Your task to perform on an android device: Open the stopwatch Image 0: 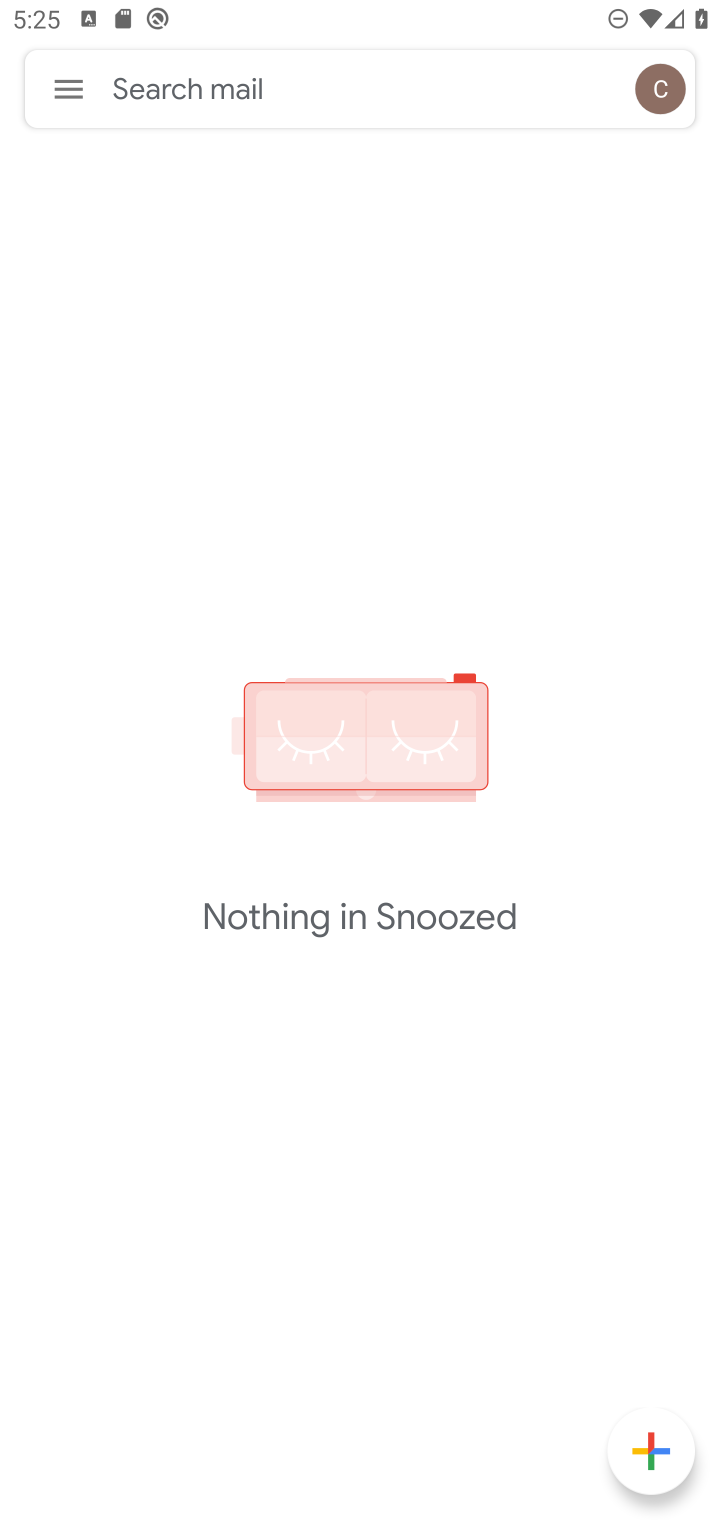
Step 0: press home button
Your task to perform on an android device: Open the stopwatch Image 1: 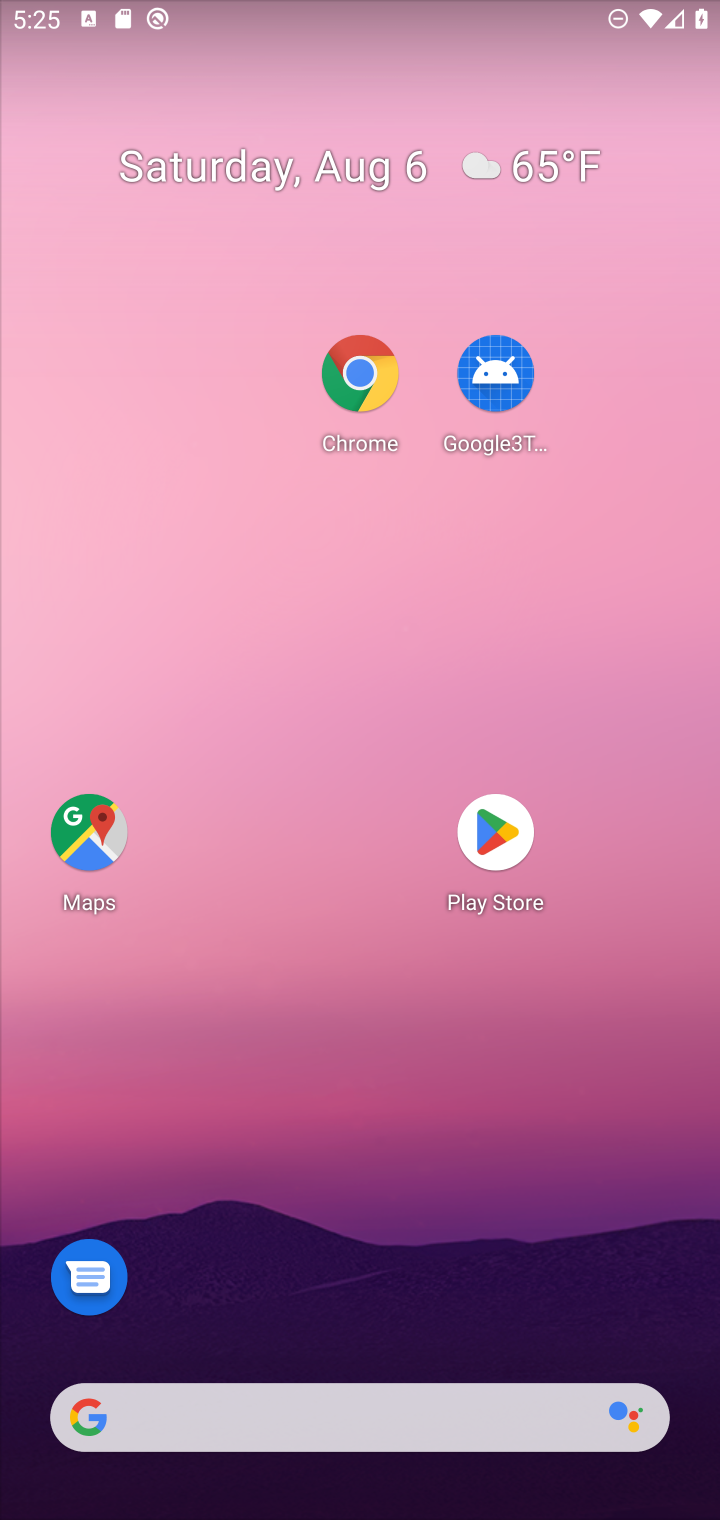
Step 1: drag from (413, 1431) to (394, 51)
Your task to perform on an android device: Open the stopwatch Image 2: 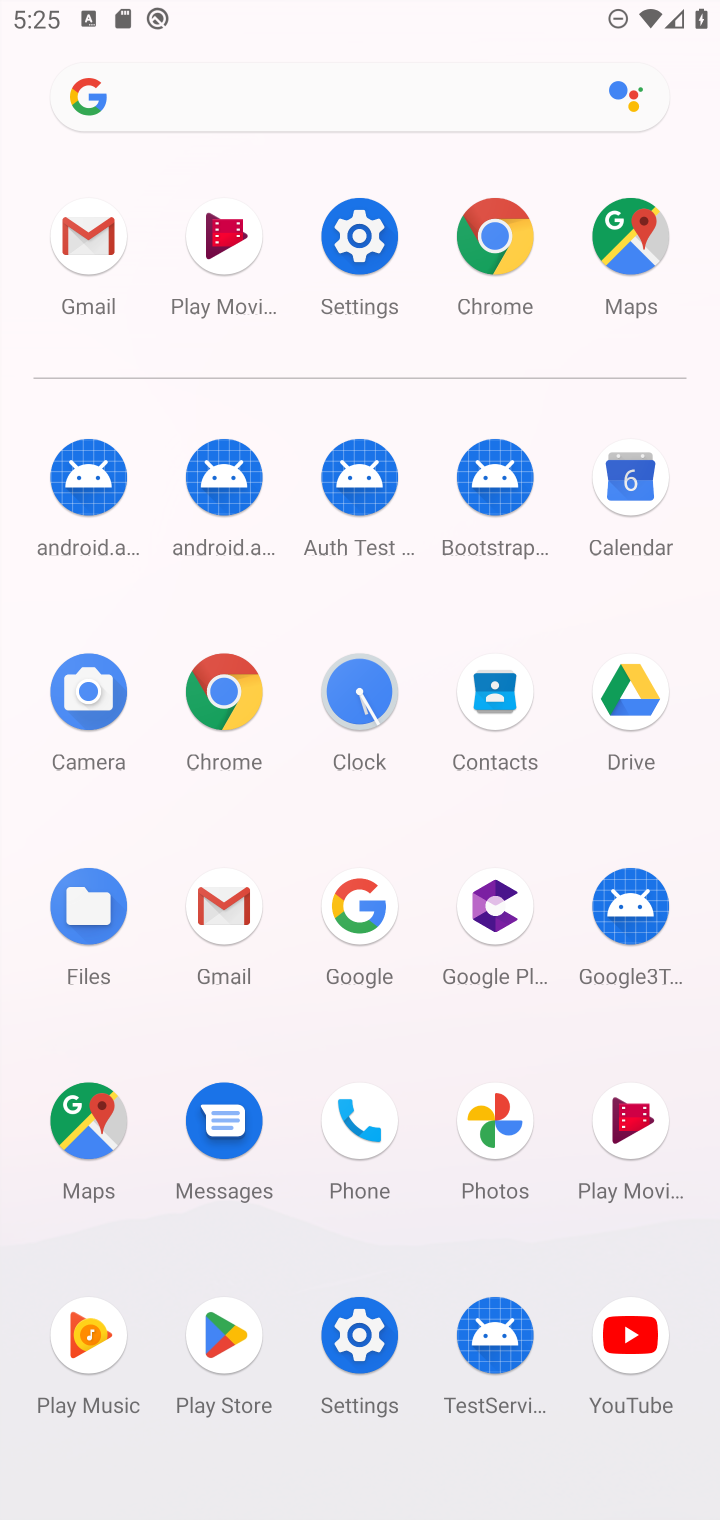
Step 2: click (345, 690)
Your task to perform on an android device: Open the stopwatch Image 3: 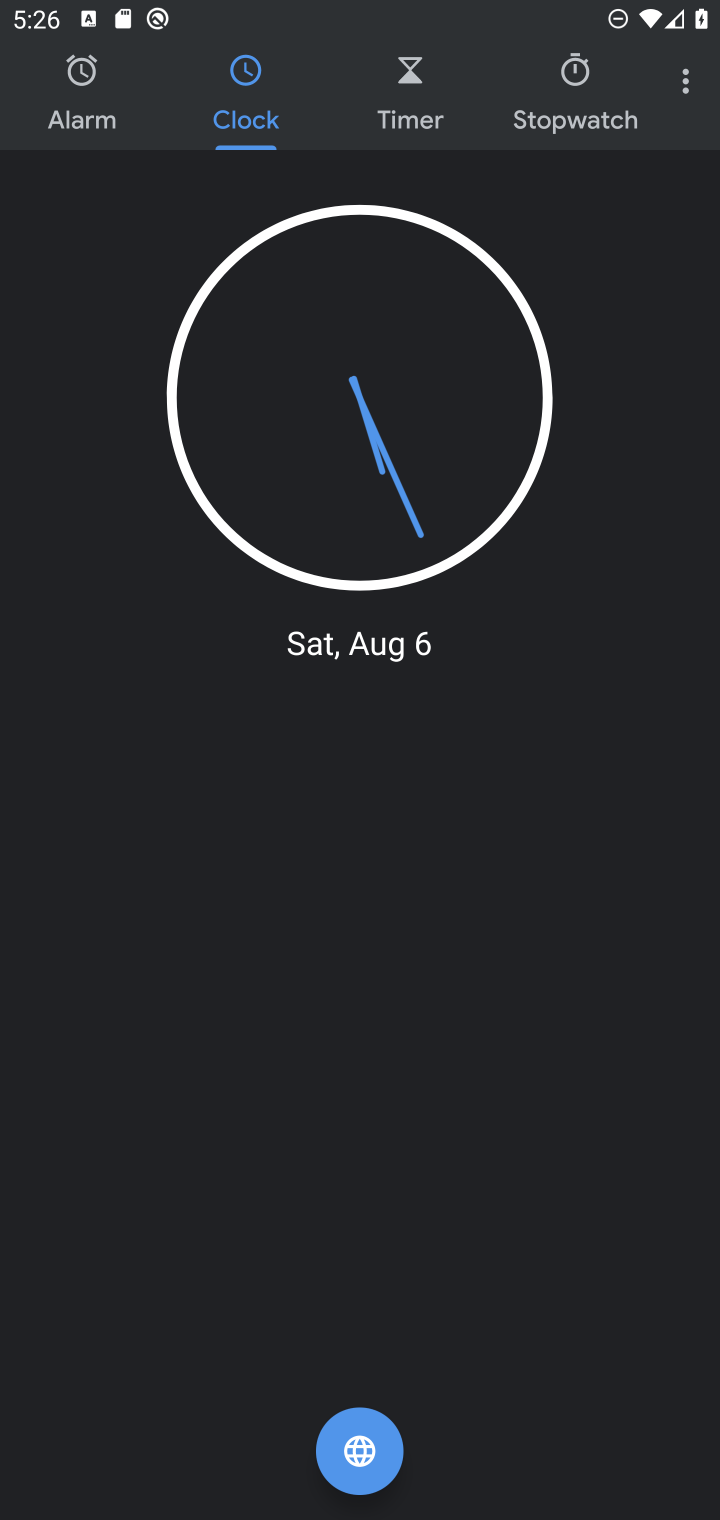
Step 3: click (559, 90)
Your task to perform on an android device: Open the stopwatch Image 4: 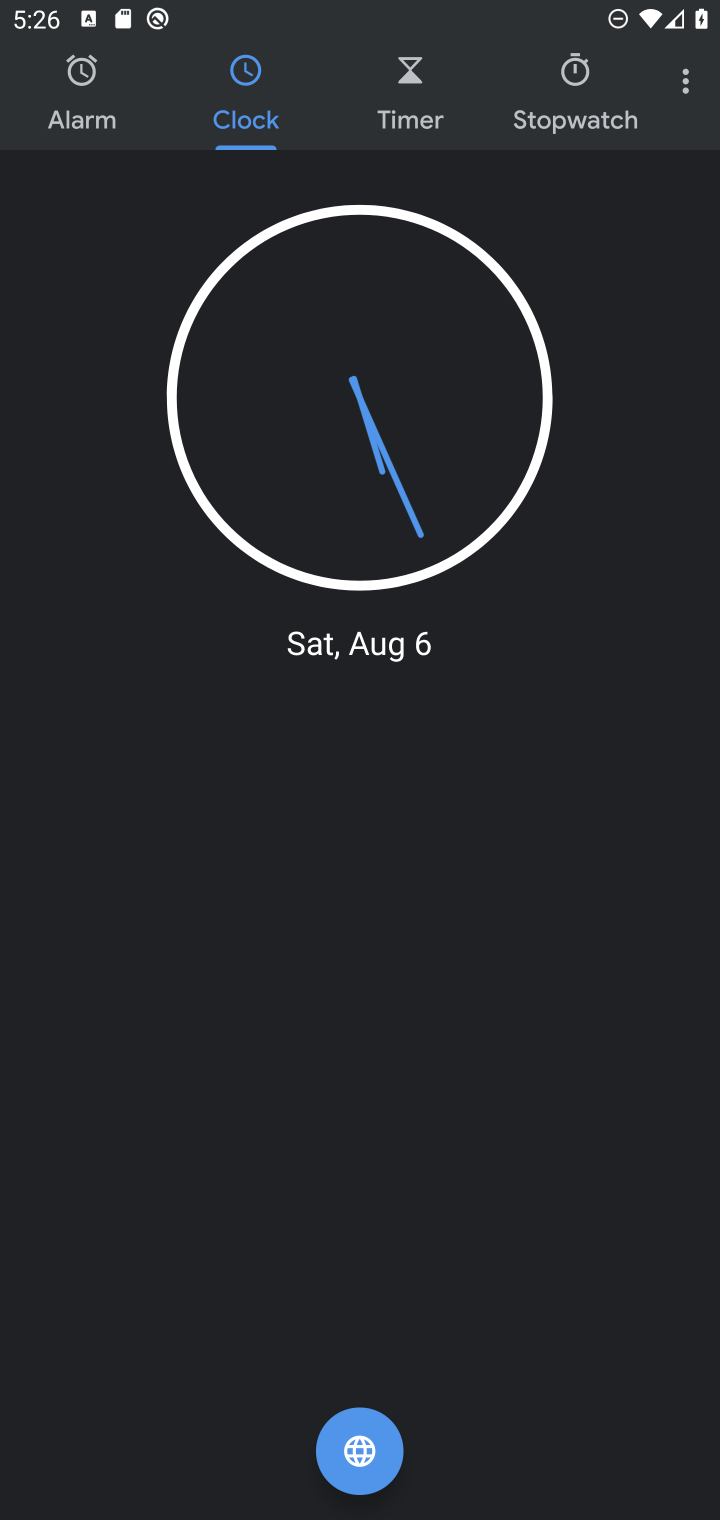
Step 4: click (590, 80)
Your task to perform on an android device: Open the stopwatch Image 5: 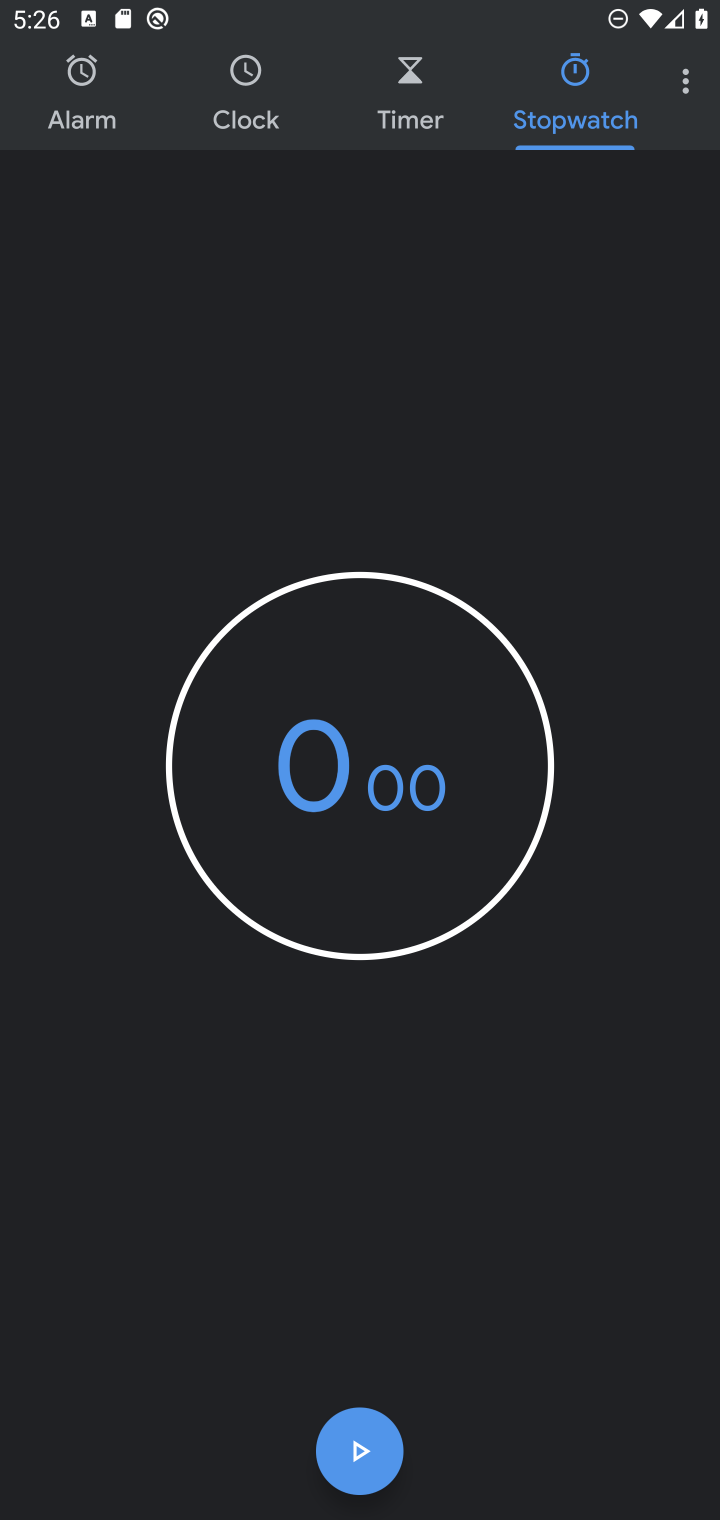
Step 5: click (348, 1461)
Your task to perform on an android device: Open the stopwatch Image 6: 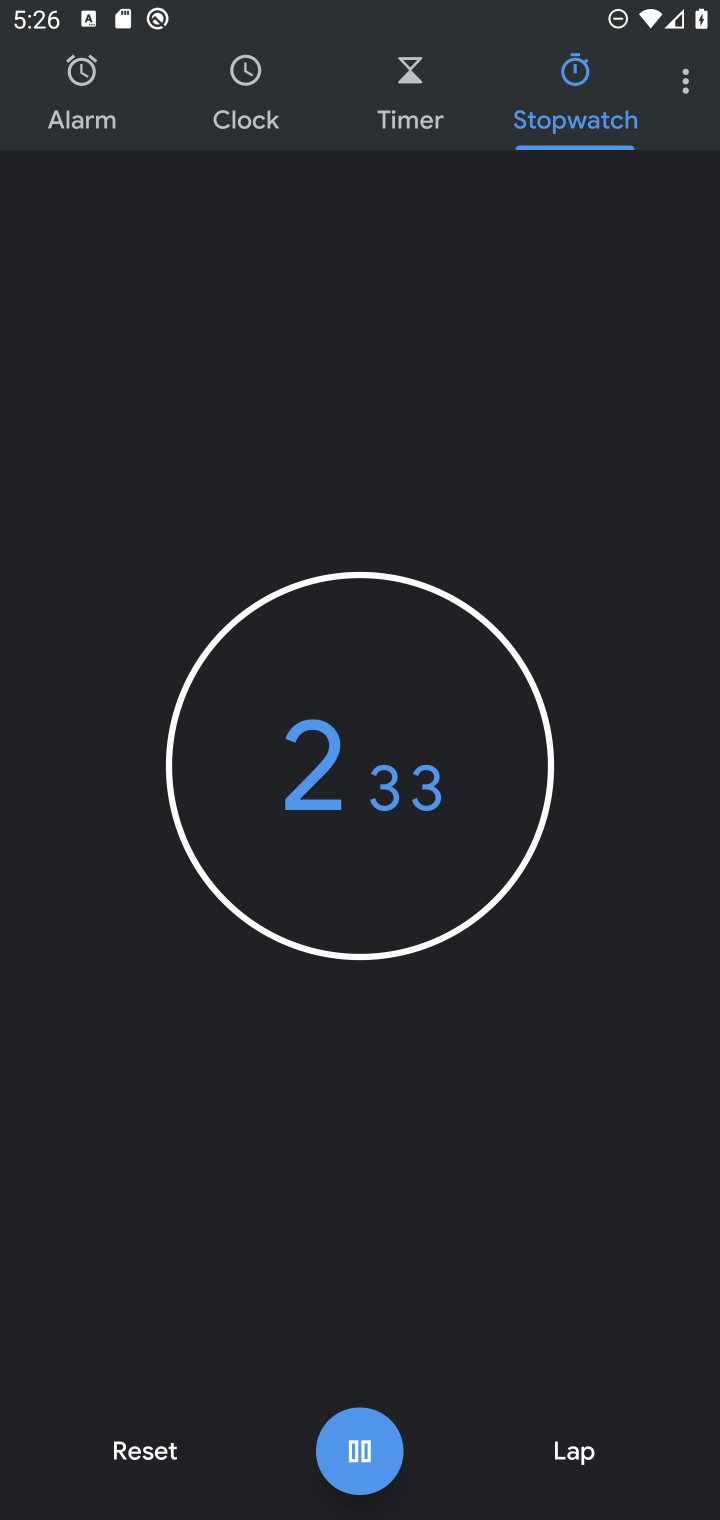
Step 6: task complete